Your task to perform on an android device: Set the phone to "Do not disturb". Image 0: 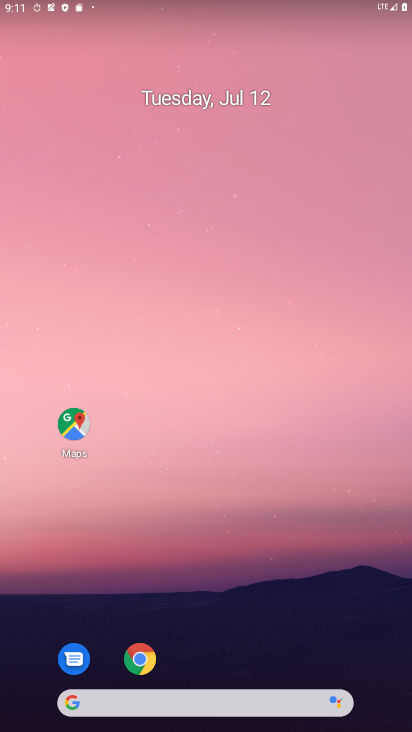
Step 0: drag from (376, 684) to (348, 20)
Your task to perform on an android device: Set the phone to "Do not disturb". Image 1: 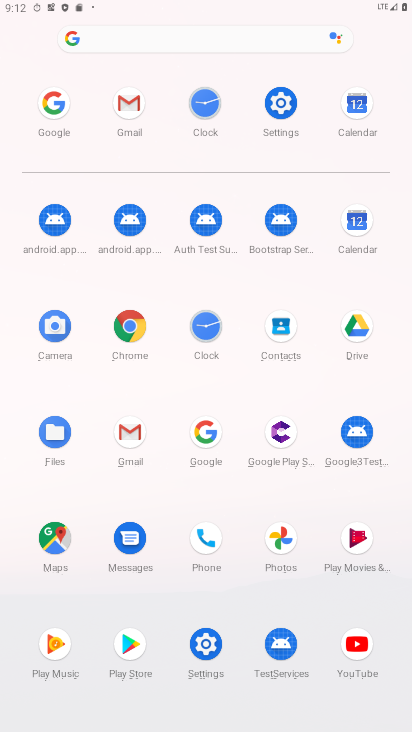
Step 1: drag from (253, 6) to (170, 445)
Your task to perform on an android device: Set the phone to "Do not disturb". Image 2: 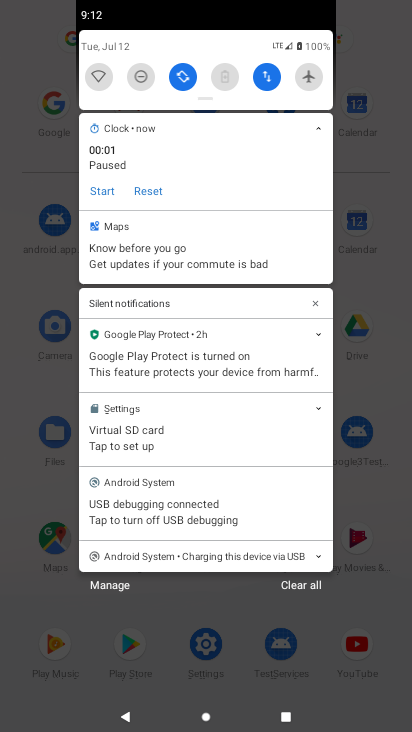
Step 2: click (138, 73)
Your task to perform on an android device: Set the phone to "Do not disturb". Image 3: 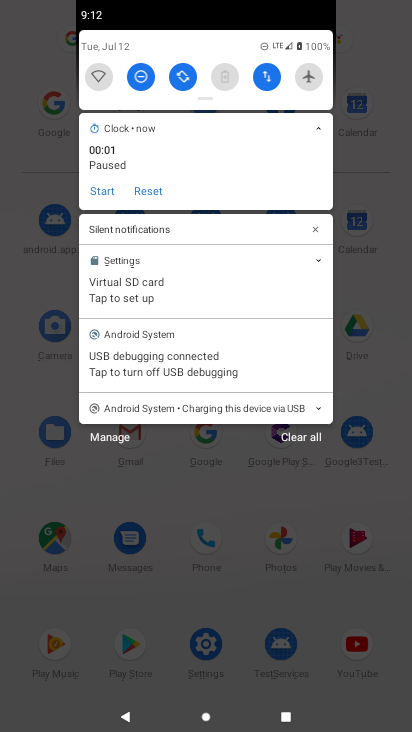
Step 3: task complete